Your task to perform on an android device: turn on location history Image 0: 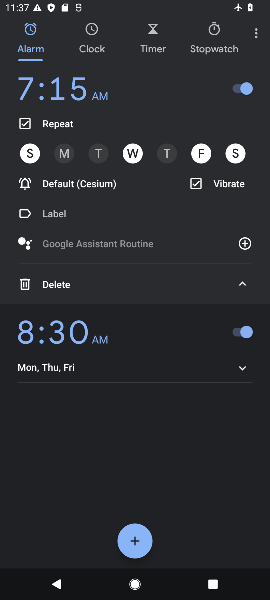
Step 0: press home button
Your task to perform on an android device: turn on location history Image 1: 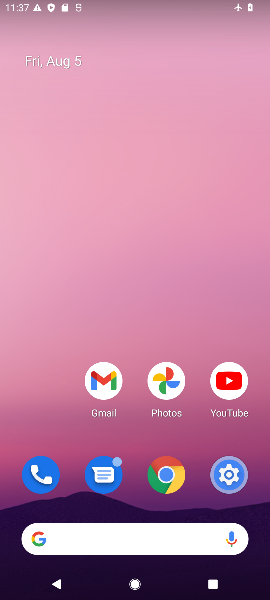
Step 1: drag from (124, 500) to (136, 110)
Your task to perform on an android device: turn on location history Image 2: 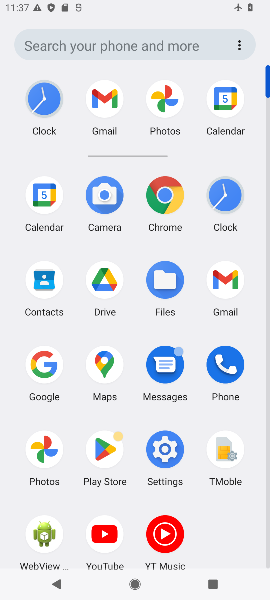
Step 2: drag from (122, 491) to (138, 153)
Your task to perform on an android device: turn on location history Image 3: 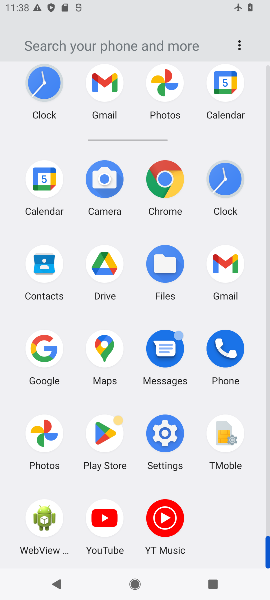
Step 3: click (168, 437)
Your task to perform on an android device: turn on location history Image 4: 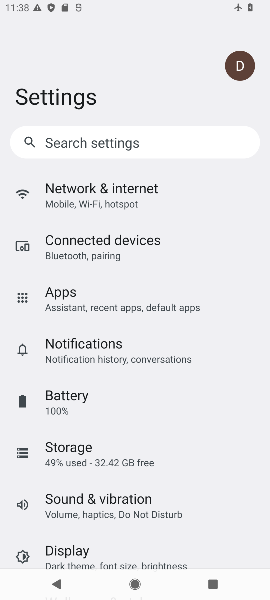
Step 4: drag from (104, 306) to (113, 205)
Your task to perform on an android device: turn on location history Image 5: 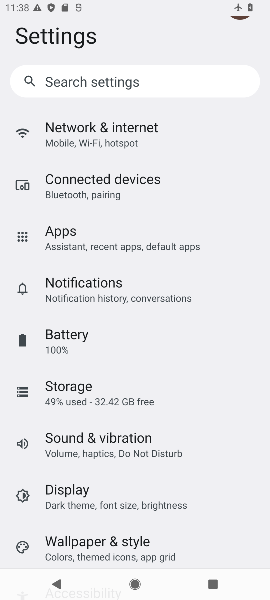
Step 5: drag from (101, 491) to (139, 329)
Your task to perform on an android device: turn on location history Image 6: 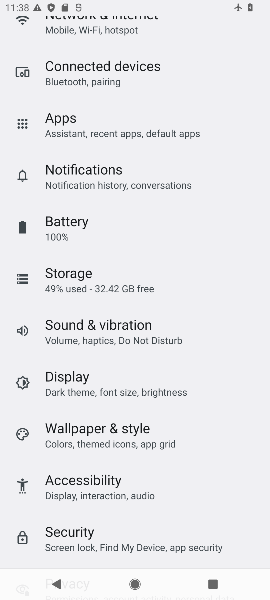
Step 6: drag from (94, 511) to (123, 335)
Your task to perform on an android device: turn on location history Image 7: 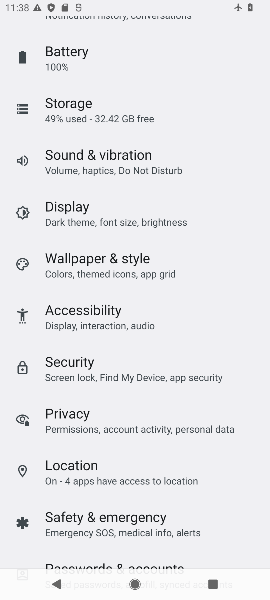
Step 7: click (98, 465)
Your task to perform on an android device: turn on location history Image 8: 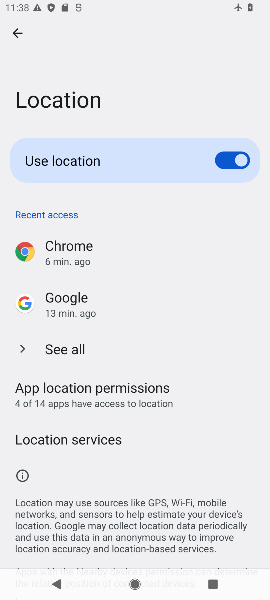
Step 8: click (79, 444)
Your task to perform on an android device: turn on location history Image 9: 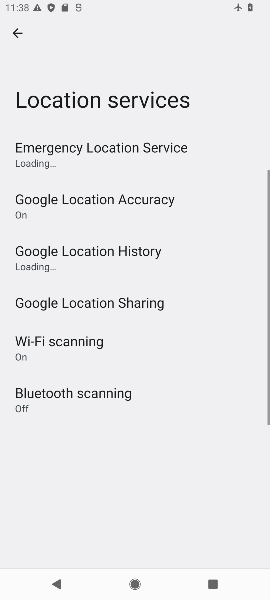
Step 9: click (115, 261)
Your task to perform on an android device: turn on location history Image 10: 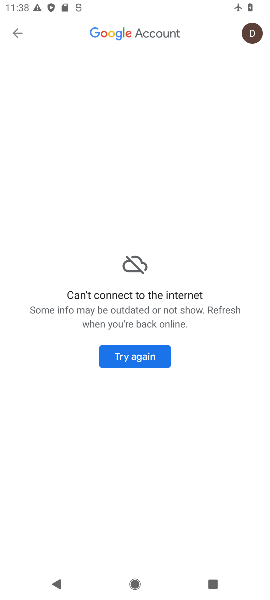
Step 10: click (140, 360)
Your task to perform on an android device: turn on location history Image 11: 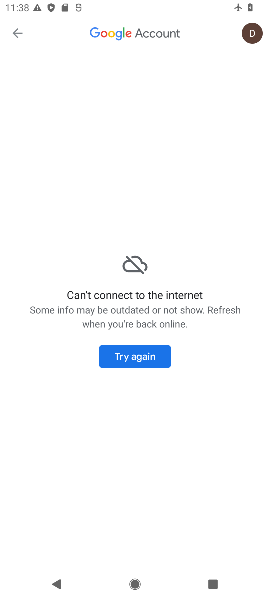
Step 11: task complete